Your task to perform on an android device: allow cookies in the chrome app Image 0: 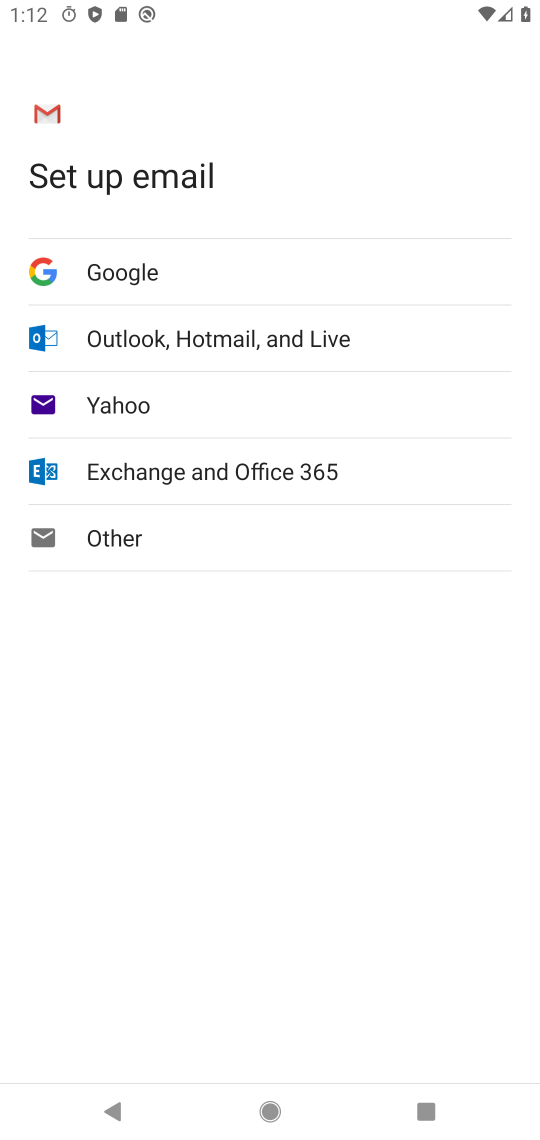
Step 0: press home button
Your task to perform on an android device: allow cookies in the chrome app Image 1: 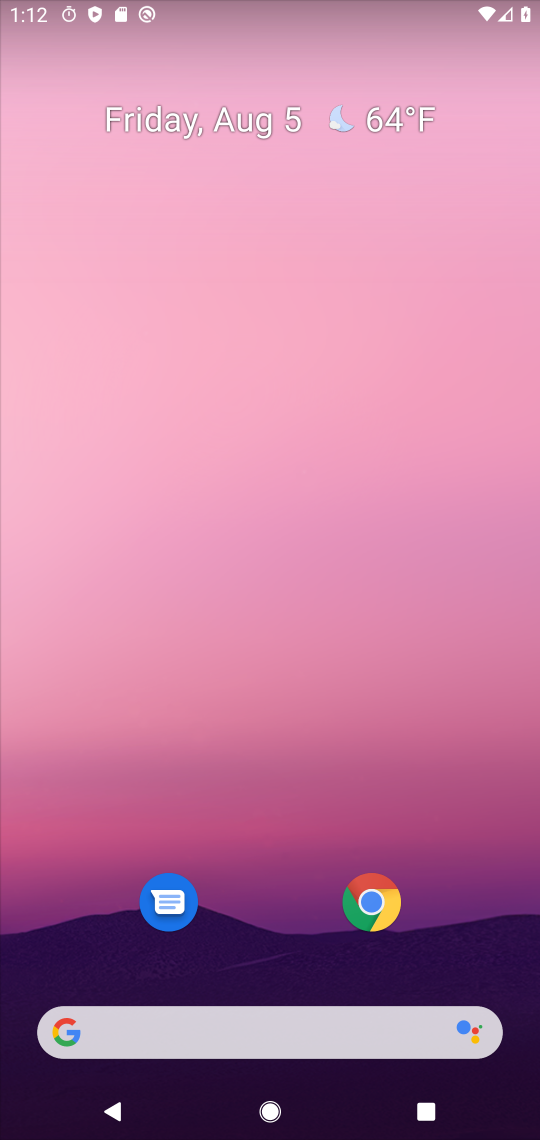
Step 1: drag from (305, 1047) to (155, 230)
Your task to perform on an android device: allow cookies in the chrome app Image 2: 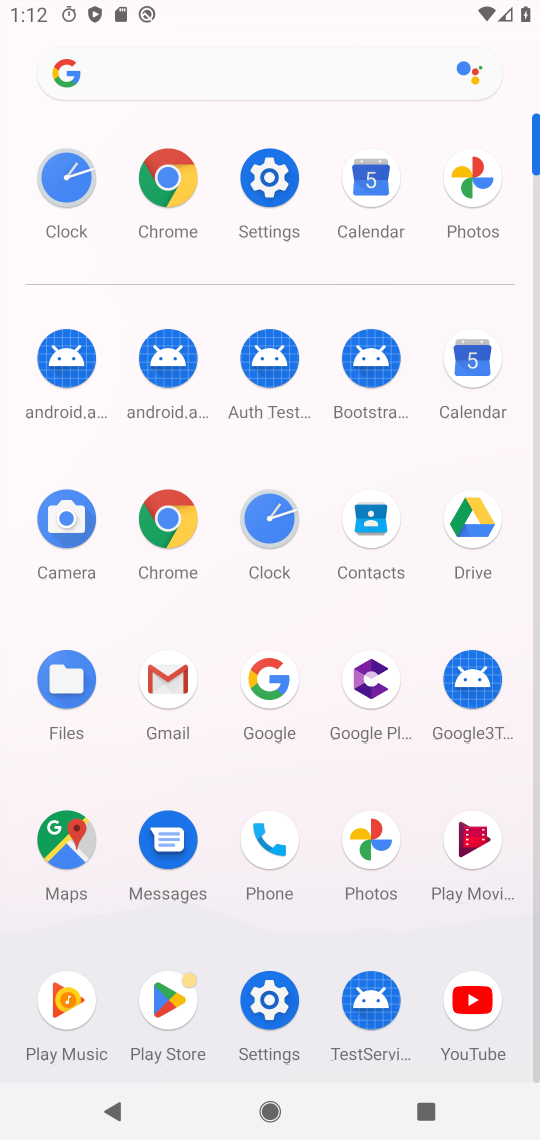
Step 2: click (170, 207)
Your task to perform on an android device: allow cookies in the chrome app Image 3: 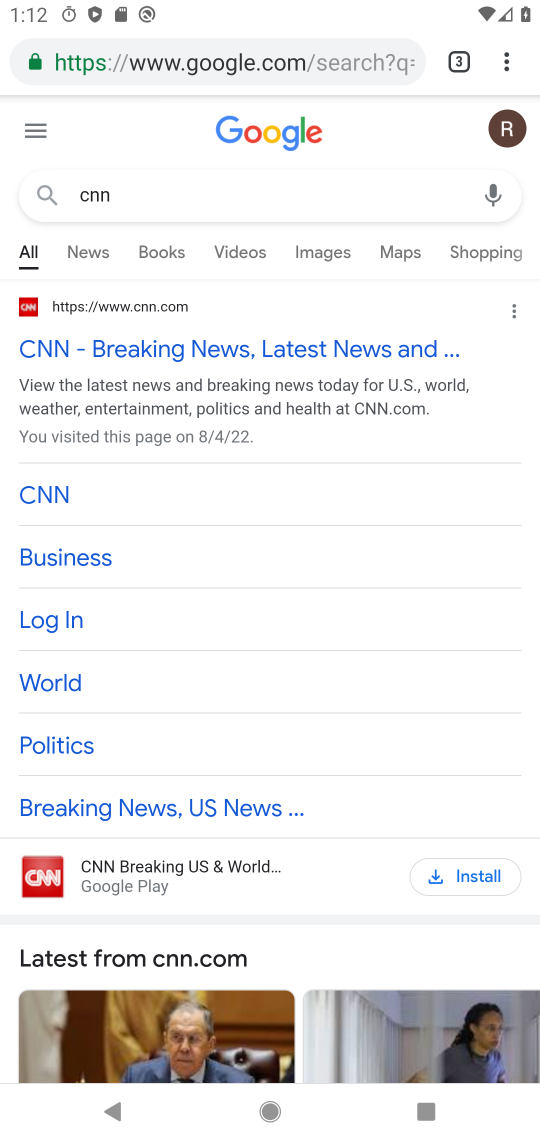
Step 3: click (513, 63)
Your task to perform on an android device: allow cookies in the chrome app Image 4: 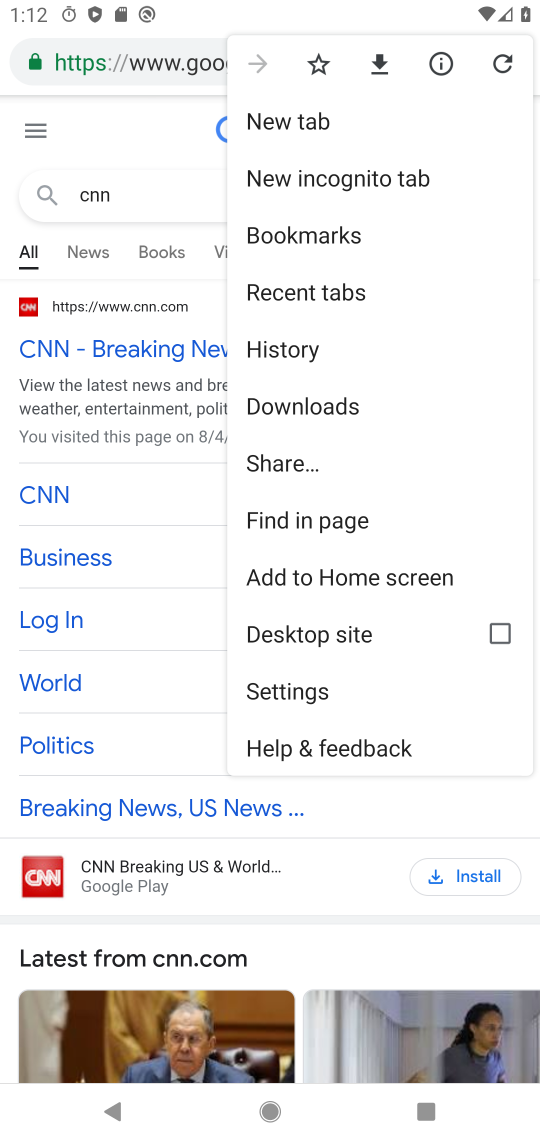
Step 4: click (315, 693)
Your task to perform on an android device: allow cookies in the chrome app Image 5: 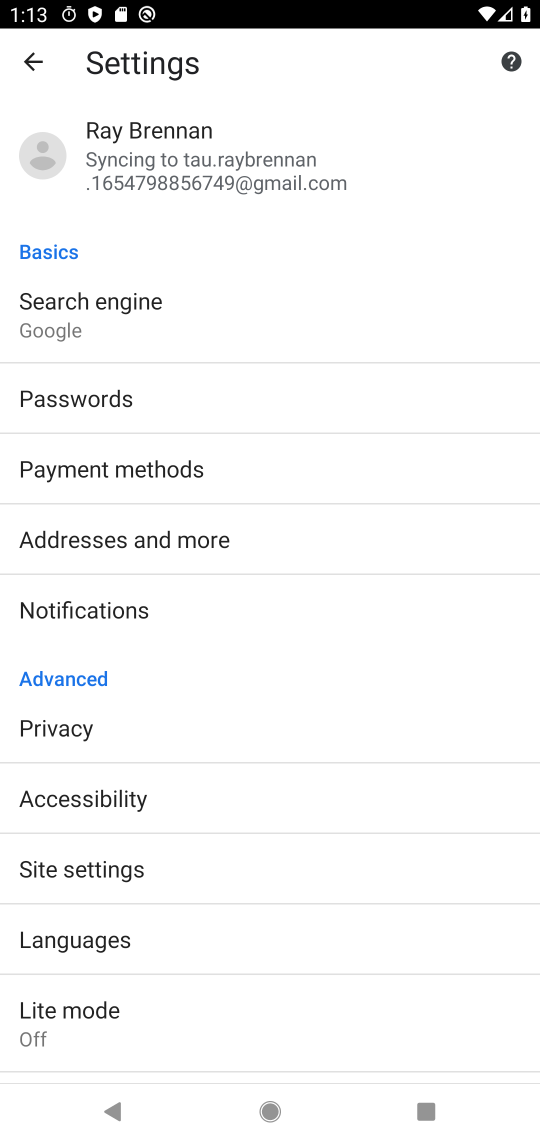
Step 5: click (98, 880)
Your task to perform on an android device: allow cookies in the chrome app Image 6: 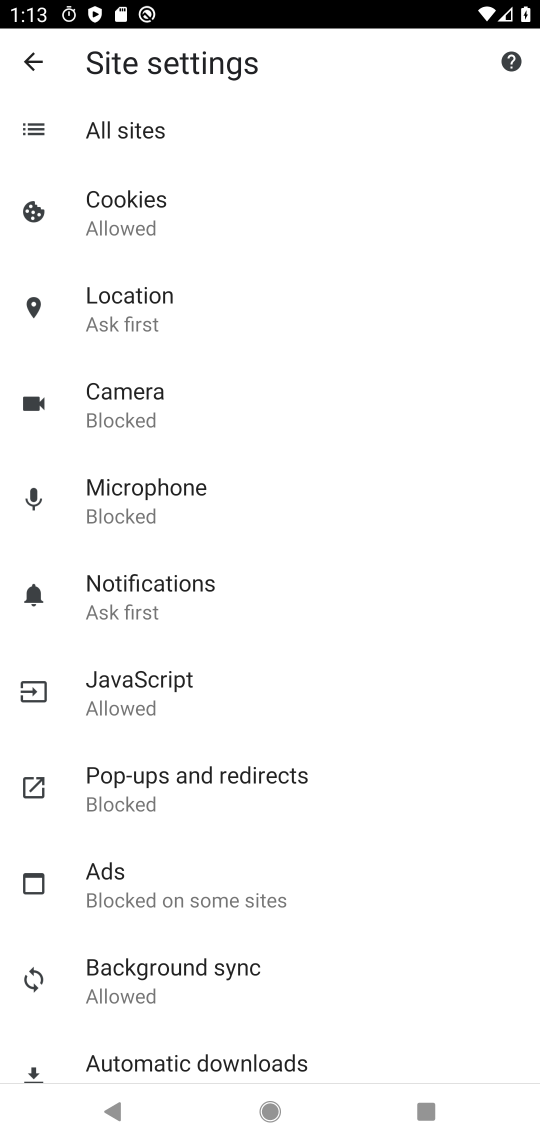
Step 6: click (184, 244)
Your task to perform on an android device: allow cookies in the chrome app Image 7: 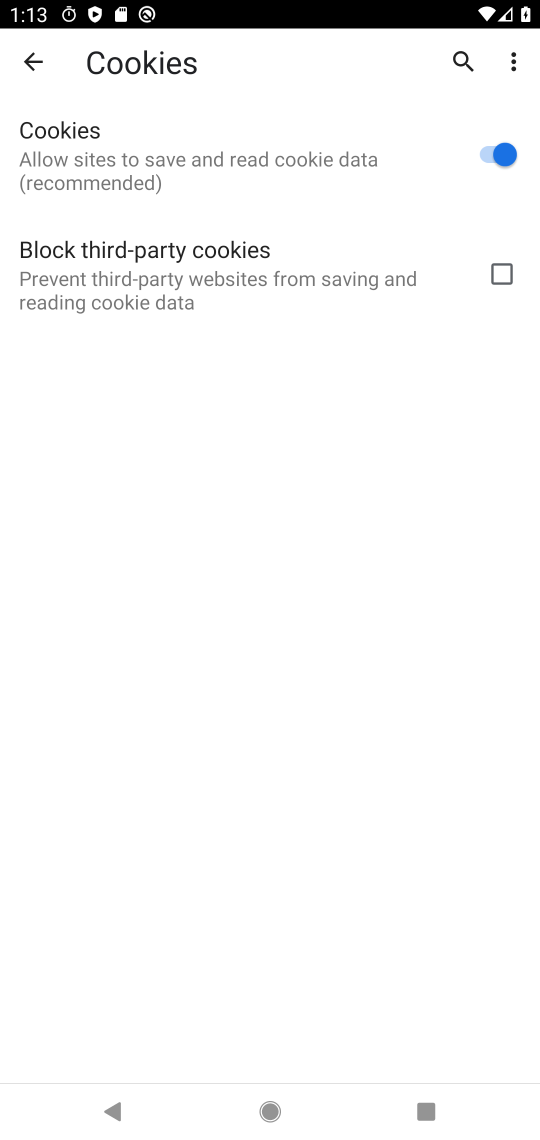
Step 7: click (159, 132)
Your task to perform on an android device: allow cookies in the chrome app Image 8: 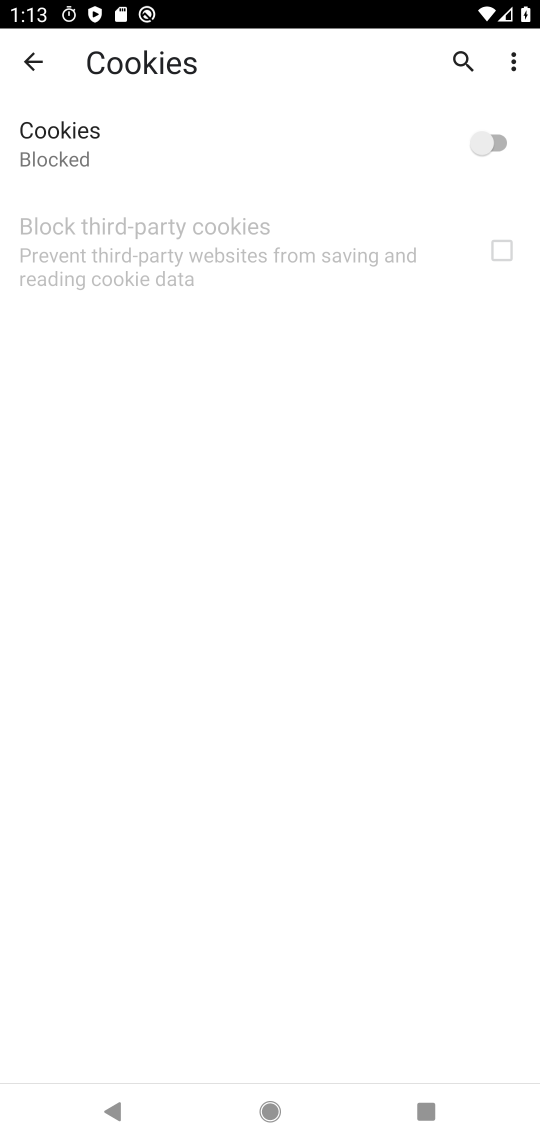
Step 8: click (159, 132)
Your task to perform on an android device: allow cookies in the chrome app Image 9: 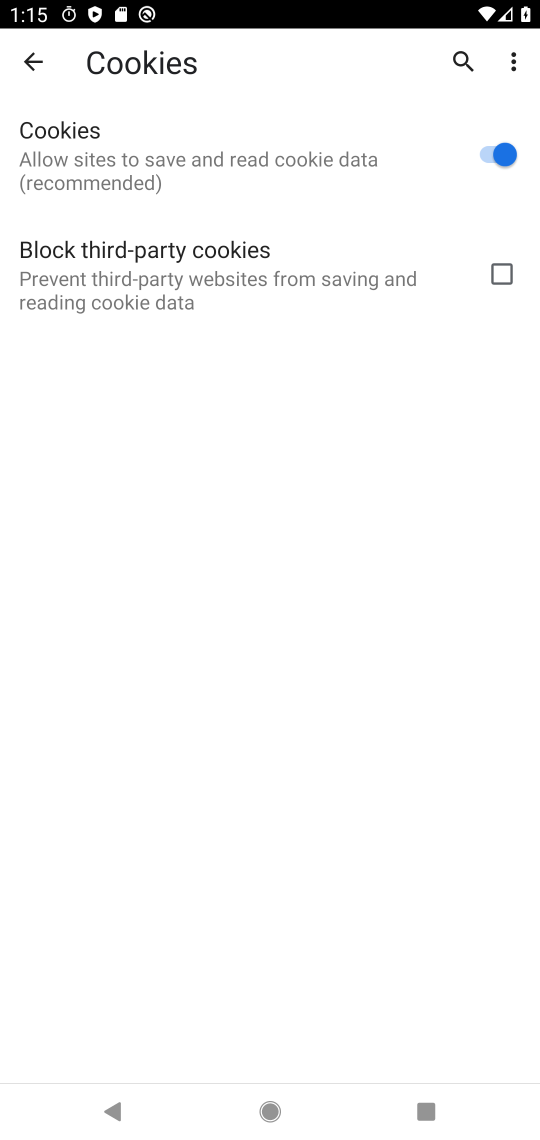
Step 9: task complete